Your task to perform on an android device: uninstall "Adobe Express: Graphic Design" Image 0: 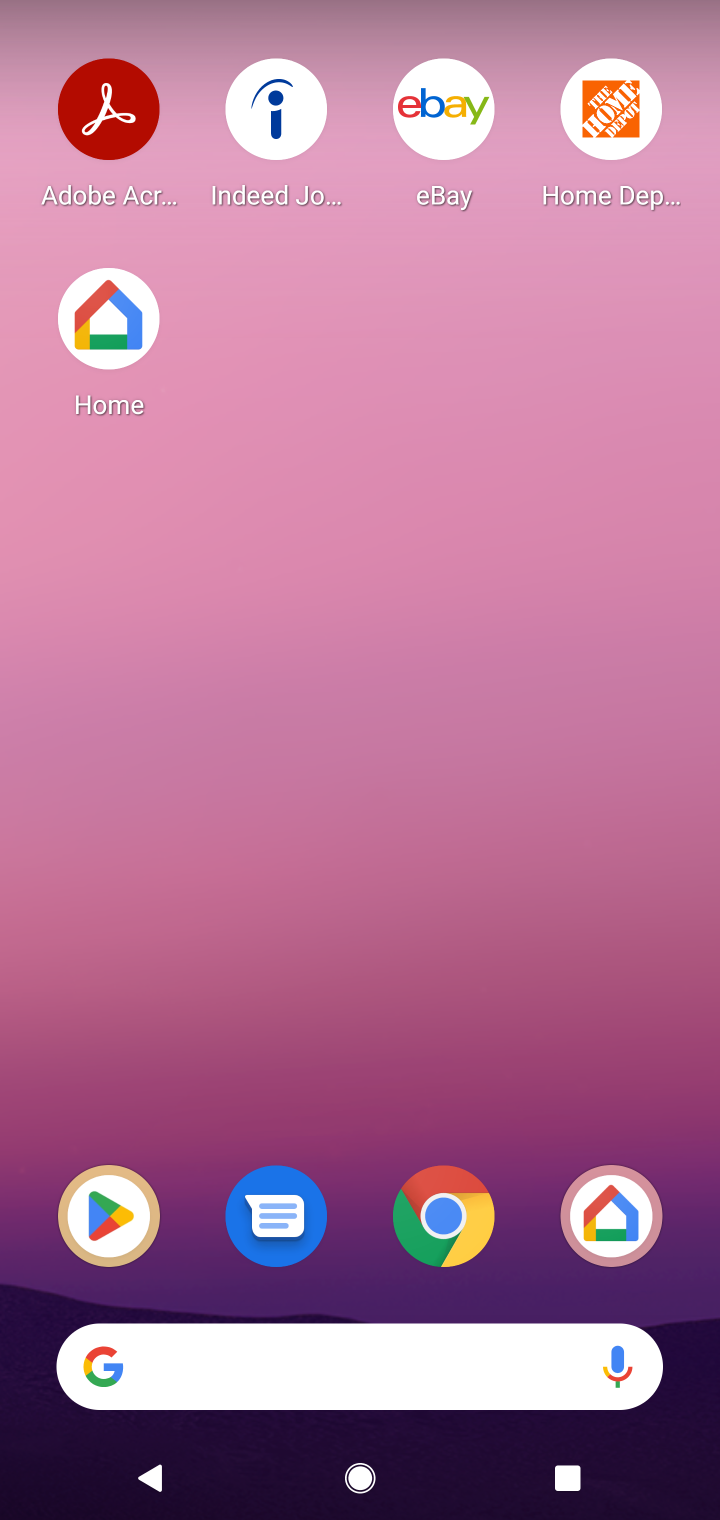
Step 0: click (116, 1233)
Your task to perform on an android device: uninstall "Adobe Express: Graphic Design" Image 1: 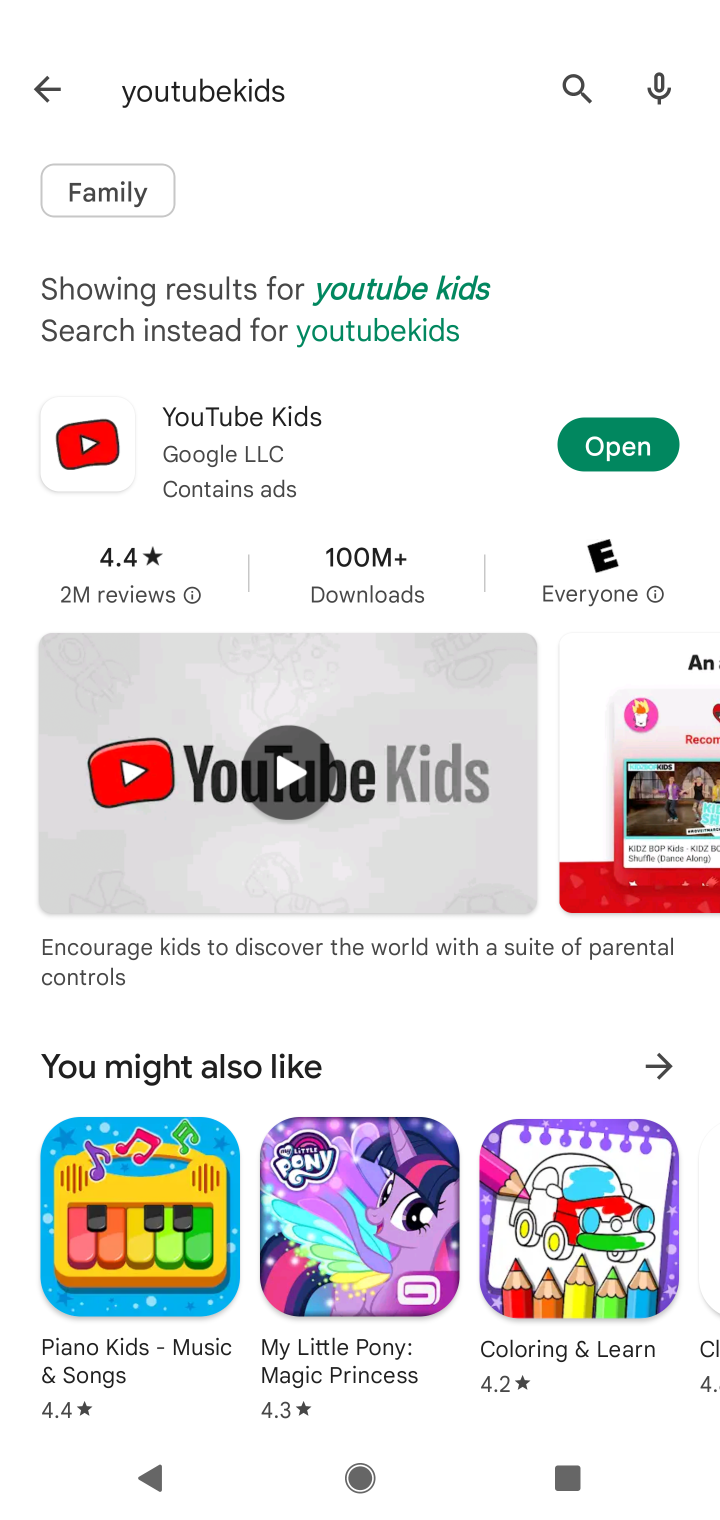
Step 1: click (526, 79)
Your task to perform on an android device: uninstall "Adobe Express: Graphic Design" Image 2: 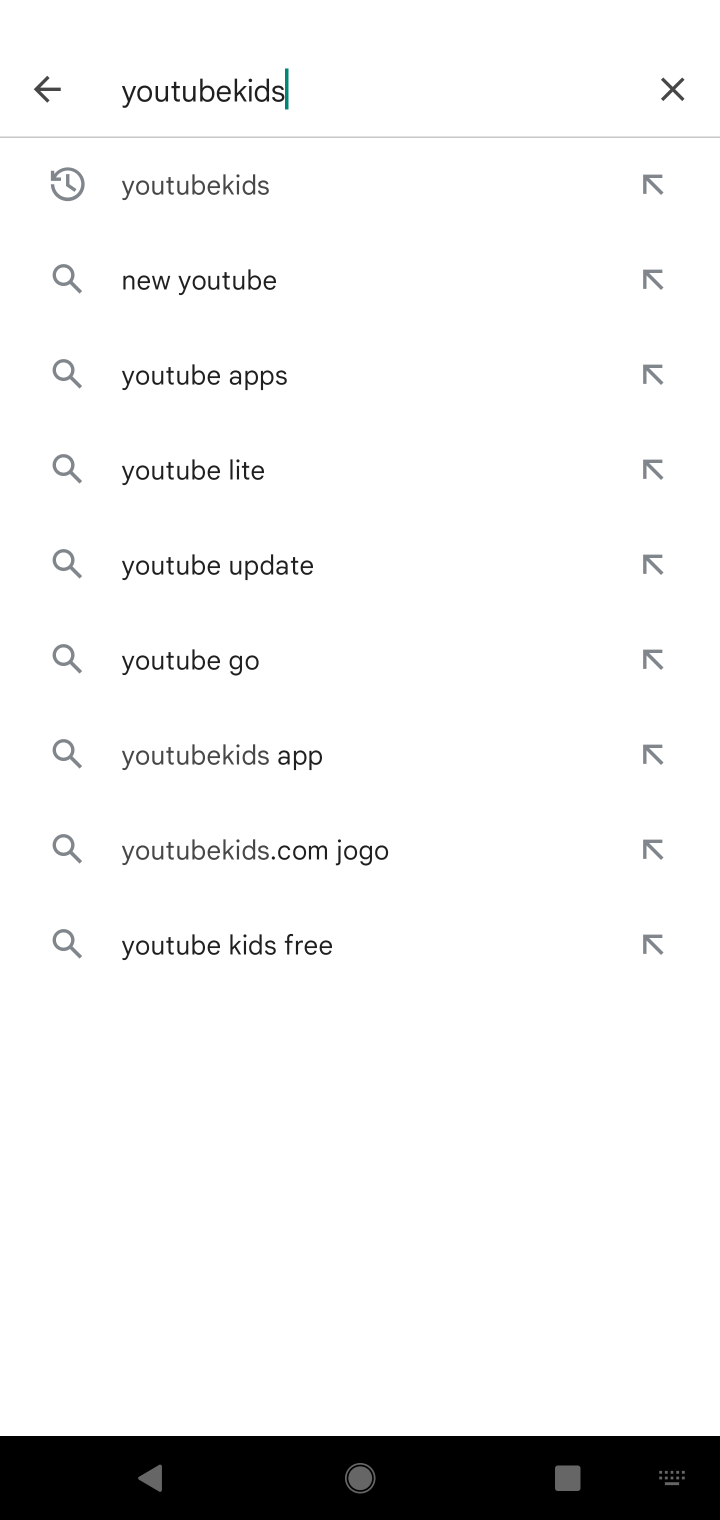
Step 2: click (657, 104)
Your task to perform on an android device: uninstall "Adobe Express: Graphic Design" Image 3: 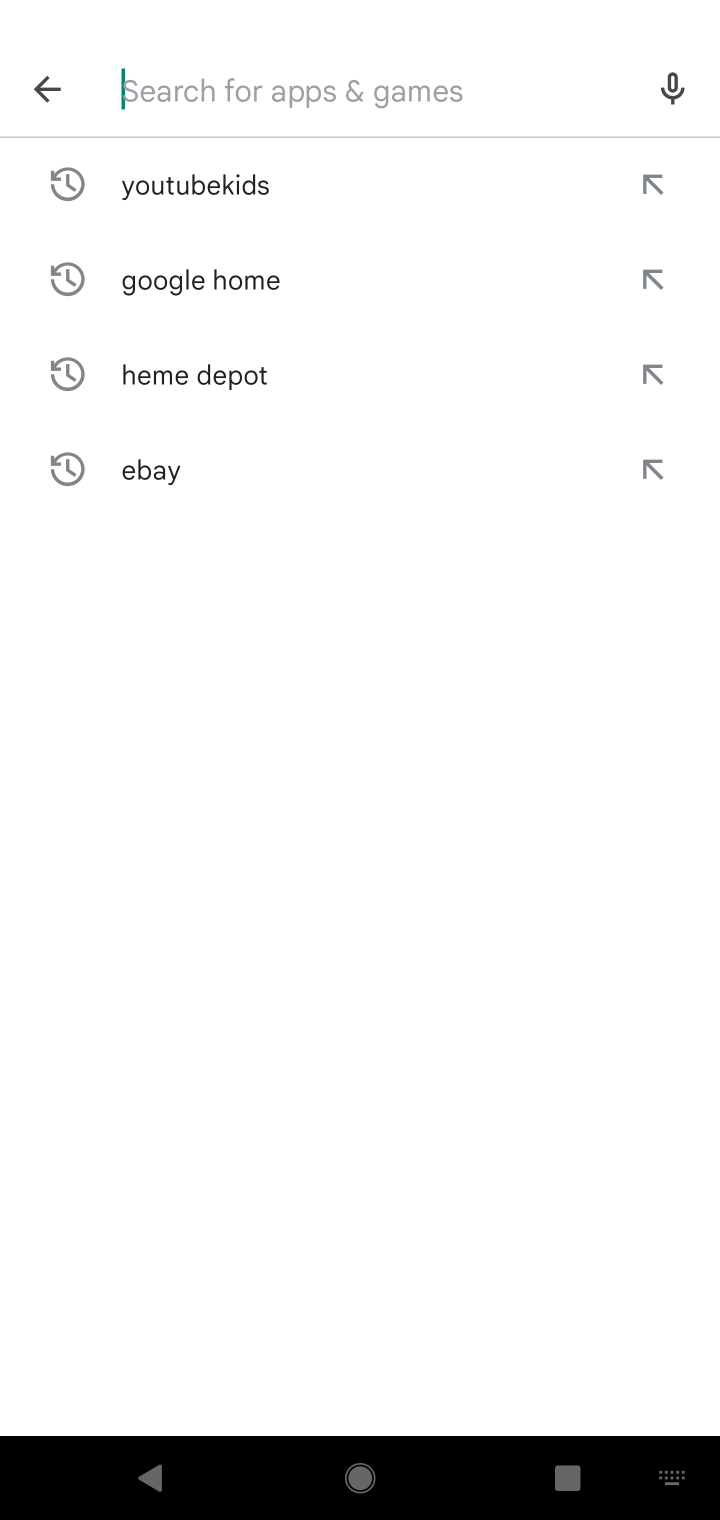
Step 3: type "adobe express"
Your task to perform on an android device: uninstall "Adobe Express: Graphic Design" Image 4: 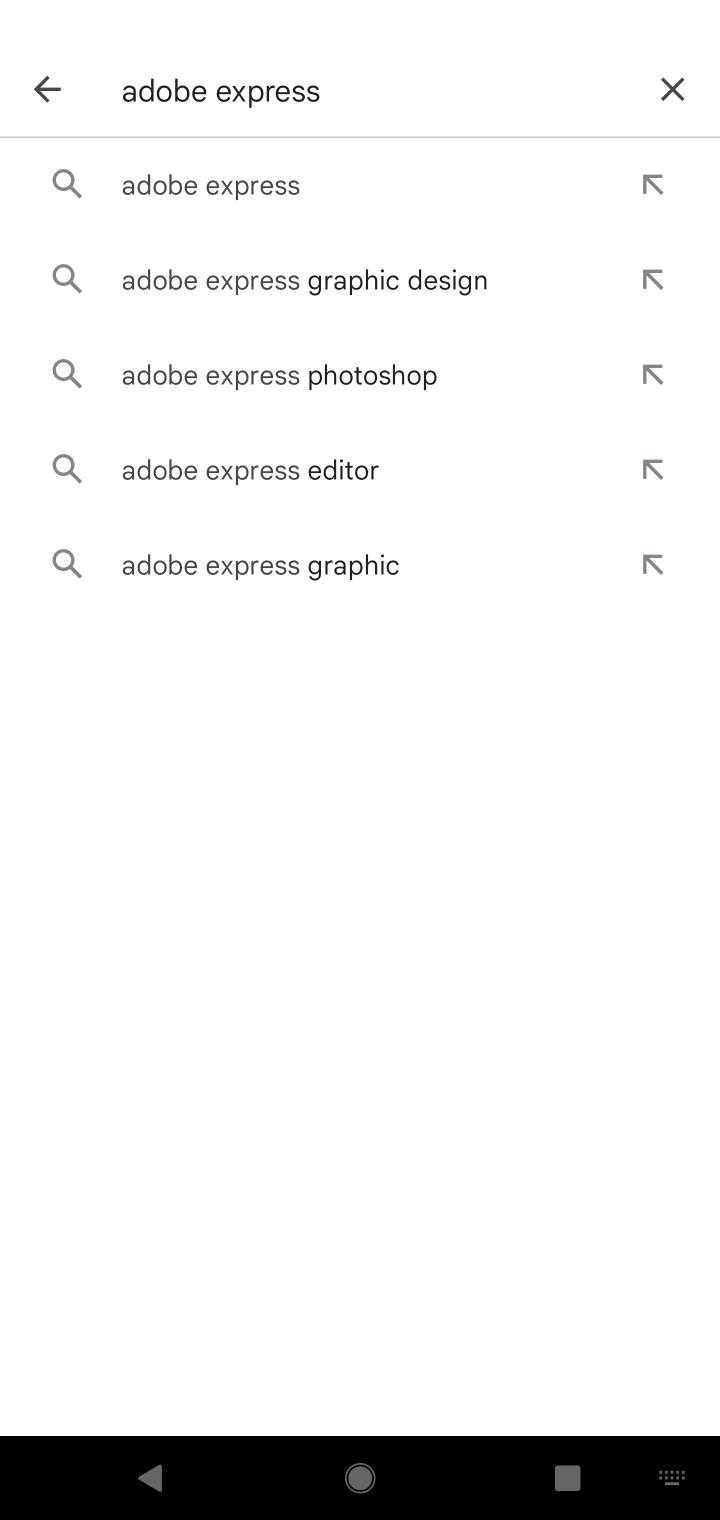
Step 4: click (340, 276)
Your task to perform on an android device: uninstall "Adobe Express: Graphic Design" Image 5: 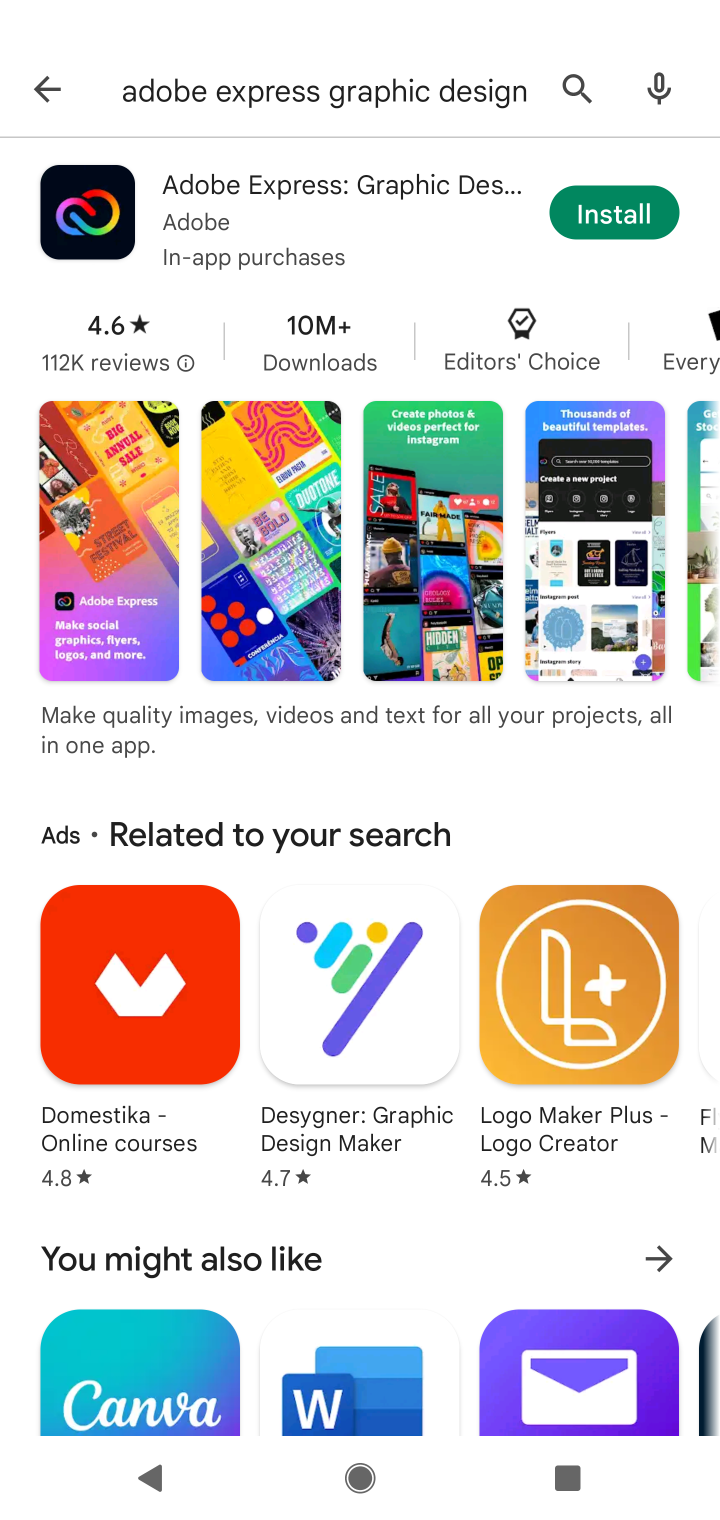
Step 5: click (638, 195)
Your task to perform on an android device: uninstall "Adobe Express: Graphic Design" Image 6: 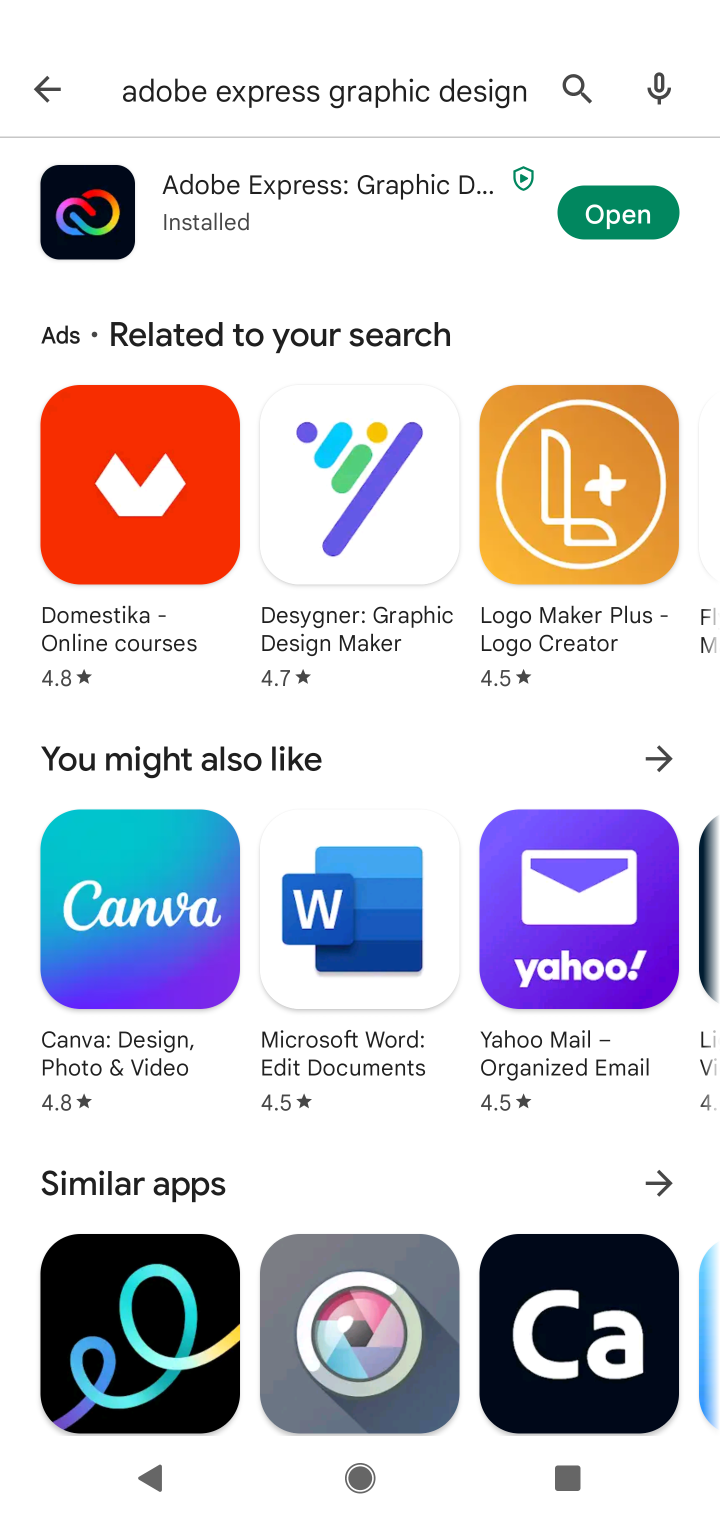
Step 6: task complete